Your task to perform on an android device: open app "PlayWell" Image 0: 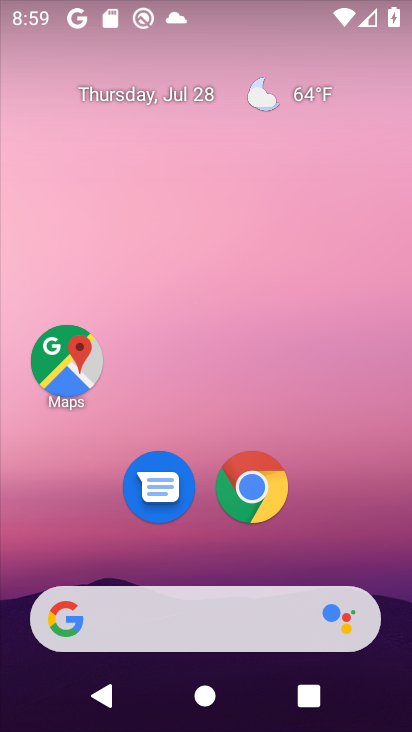
Step 0: drag from (255, 688) to (171, 109)
Your task to perform on an android device: open app "PlayWell" Image 1: 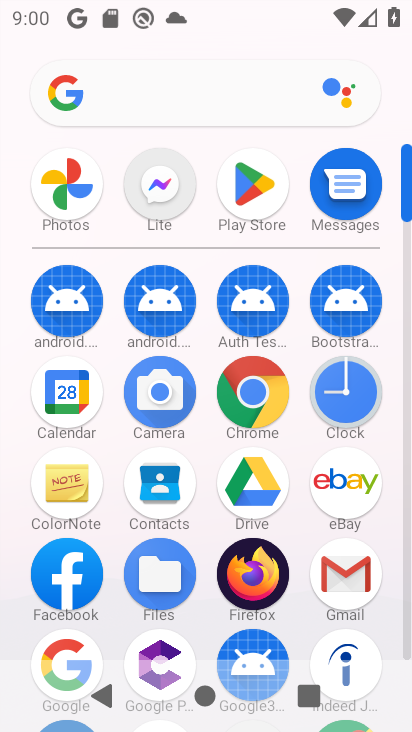
Step 1: click (240, 185)
Your task to perform on an android device: open app "PlayWell" Image 2: 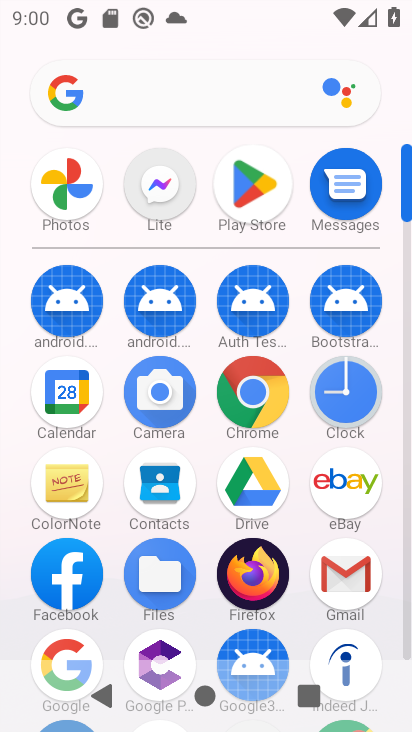
Step 2: click (249, 185)
Your task to perform on an android device: open app "PlayWell" Image 3: 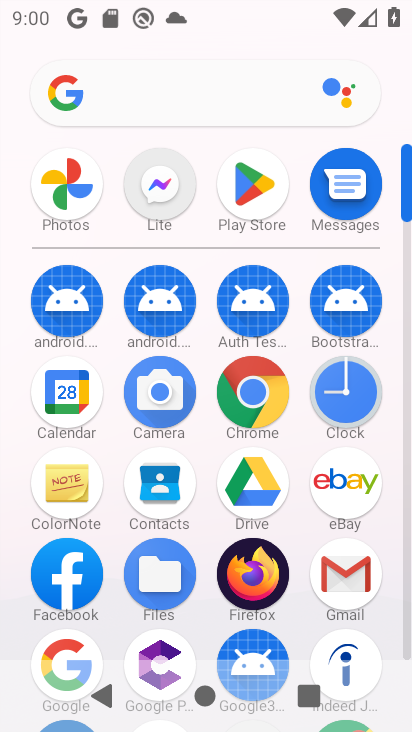
Step 3: click (266, 170)
Your task to perform on an android device: open app "PlayWell" Image 4: 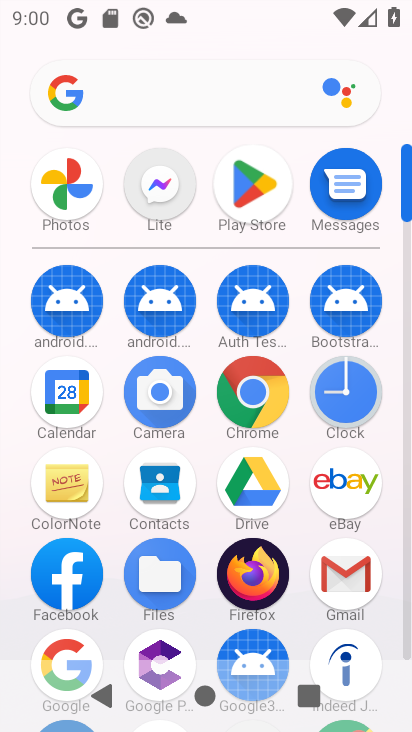
Step 4: click (255, 190)
Your task to perform on an android device: open app "PlayWell" Image 5: 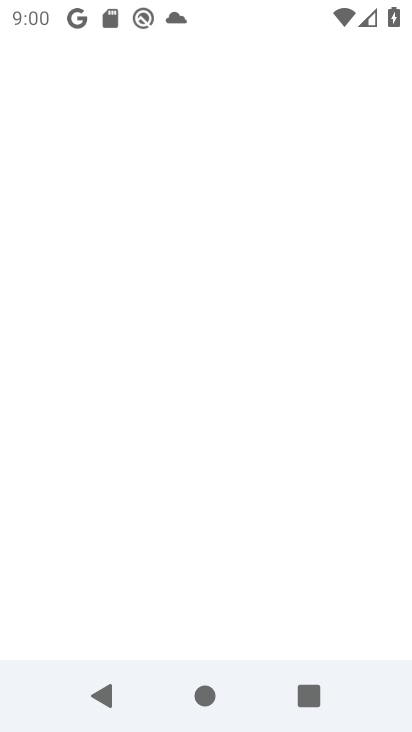
Step 5: click (254, 191)
Your task to perform on an android device: open app "PlayWell" Image 6: 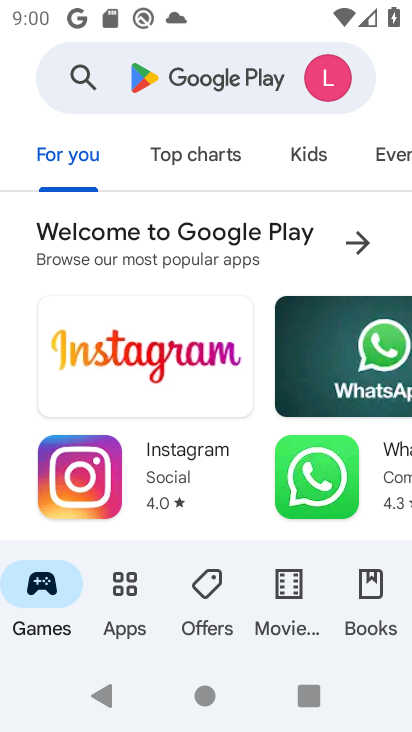
Step 6: click (161, 69)
Your task to perform on an android device: open app "PlayWell" Image 7: 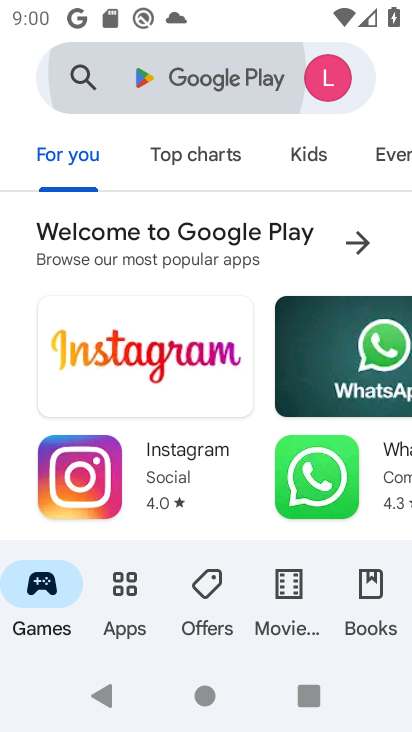
Step 7: click (160, 69)
Your task to perform on an android device: open app "PlayWell" Image 8: 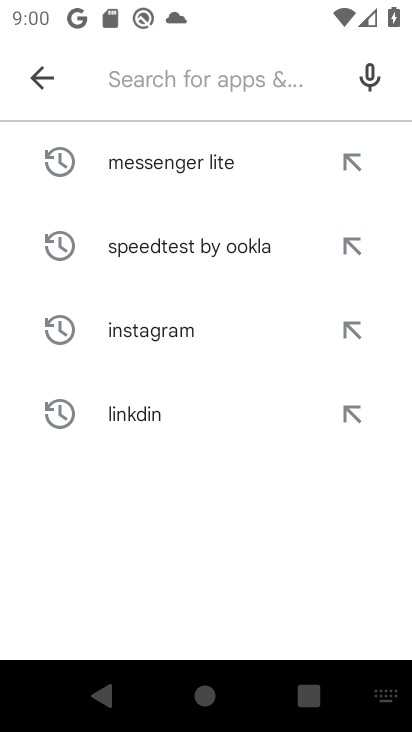
Step 8: type "PlayWell"
Your task to perform on an android device: open app "PlayWell" Image 9: 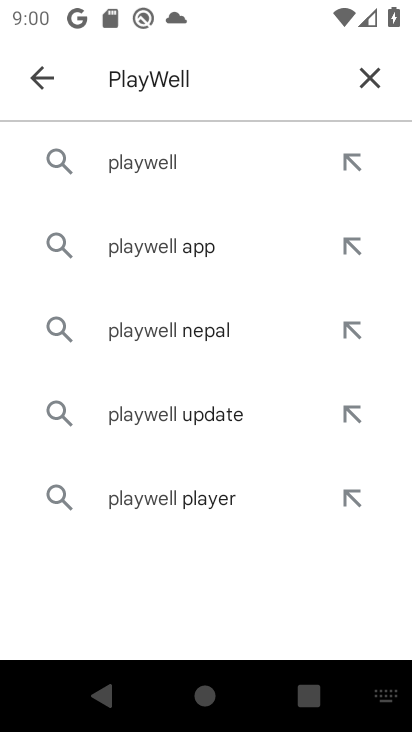
Step 9: click (99, 159)
Your task to perform on an android device: open app "PlayWell" Image 10: 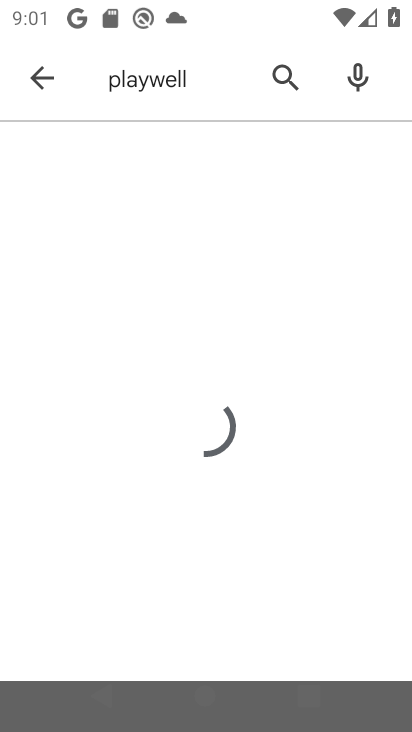
Step 10: click (161, 163)
Your task to perform on an android device: open app "PlayWell" Image 11: 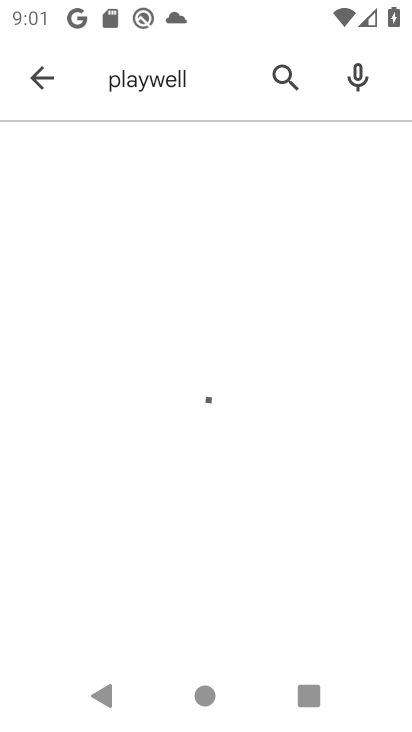
Step 11: click (162, 162)
Your task to perform on an android device: open app "PlayWell" Image 12: 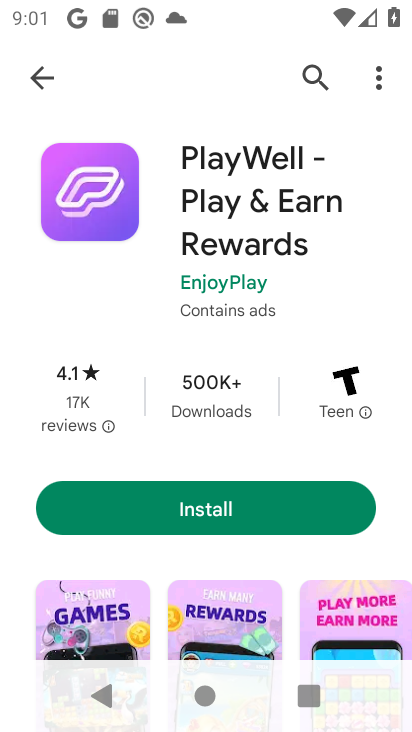
Step 12: click (222, 512)
Your task to perform on an android device: open app "PlayWell" Image 13: 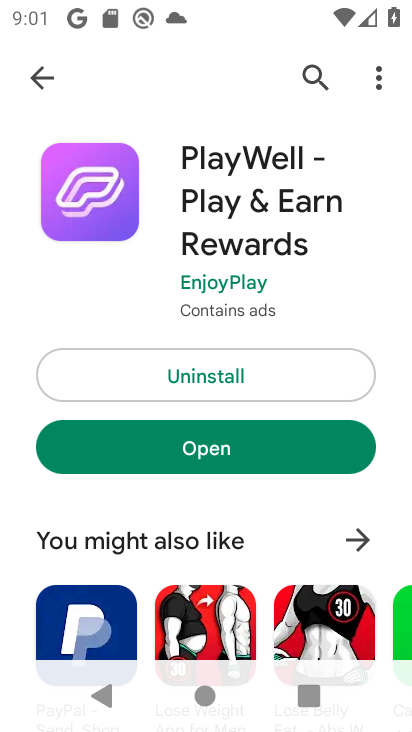
Step 13: click (233, 454)
Your task to perform on an android device: open app "PlayWell" Image 14: 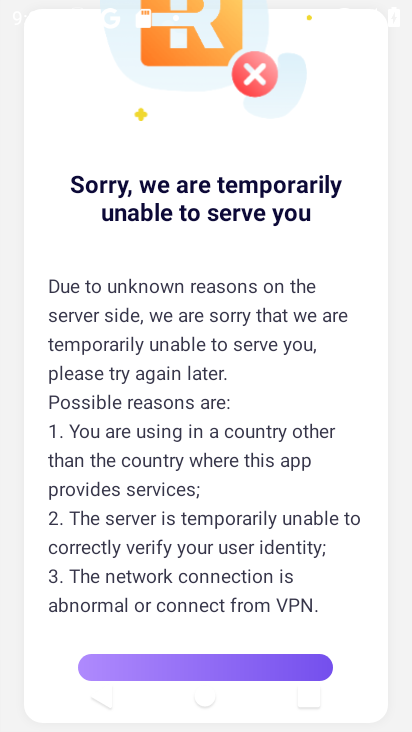
Step 14: press back button
Your task to perform on an android device: open app "PlayWell" Image 15: 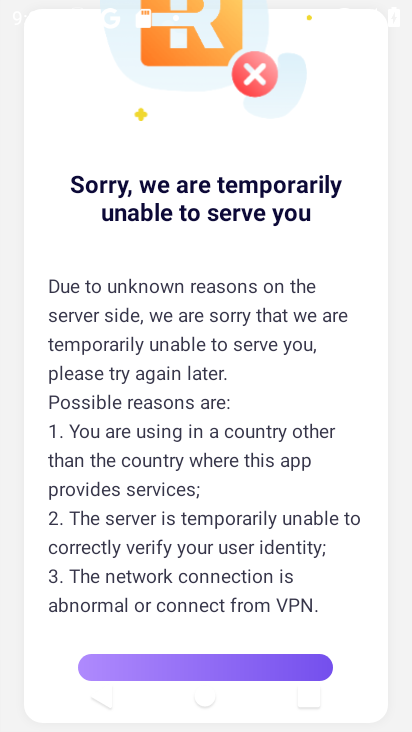
Step 15: press home button
Your task to perform on an android device: open app "PlayWell" Image 16: 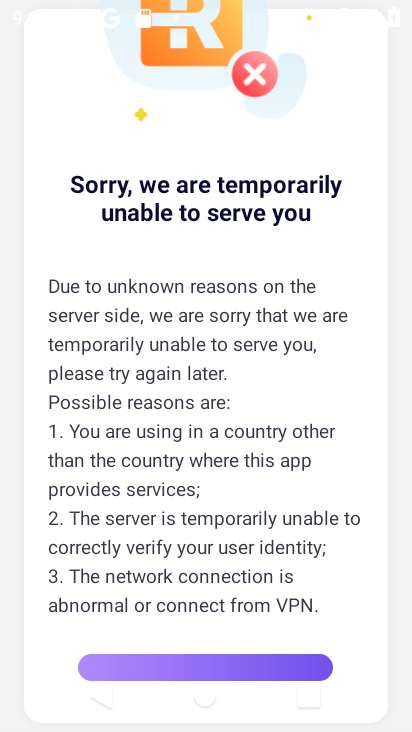
Step 16: press home button
Your task to perform on an android device: open app "PlayWell" Image 17: 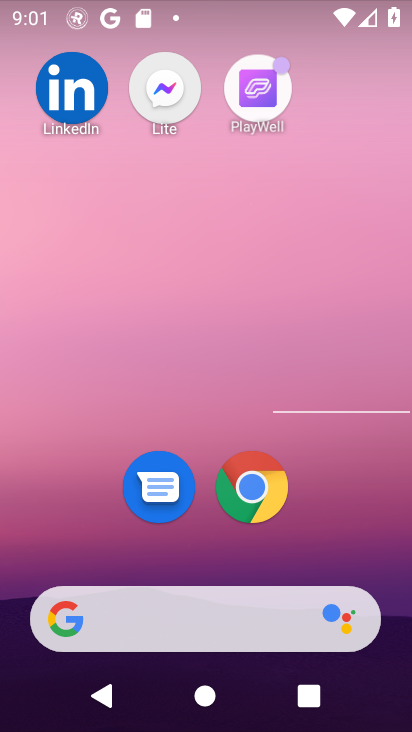
Step 17: press back button
Your task to perform on an android device: open app "PlayWell" Image 18: 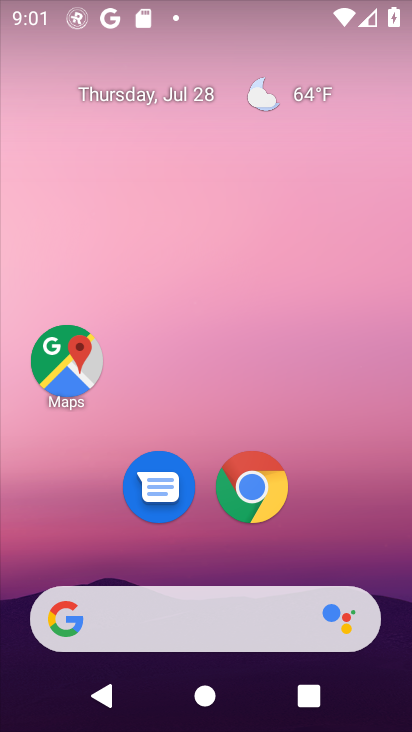
Step 18: drag from (205, 454) to (204, 98)
Your task to perform on an android device: open app "PlayWell" Image 19: 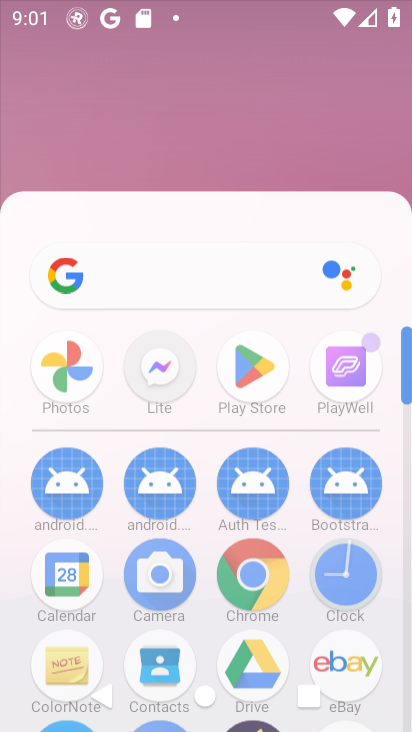
Step 19: drag from (238, 503) to (191, 228)
Your task to perform on an android device: open app "PlayWell" Image 20: 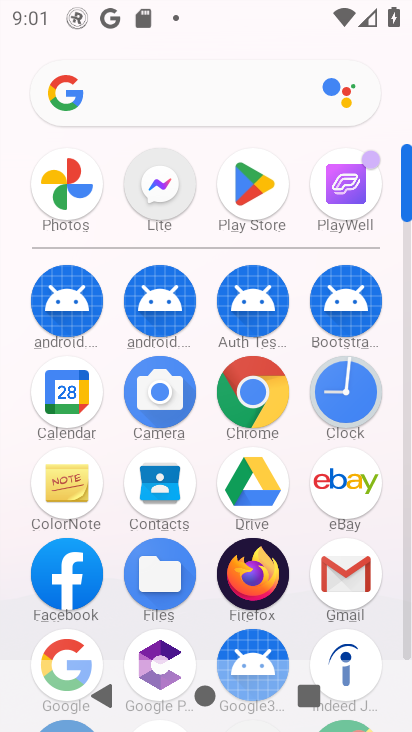
Step 20: drag from (203, 332) to (203, 197)
Your task to perform on an android device: open app "PlayWell" Image 21: 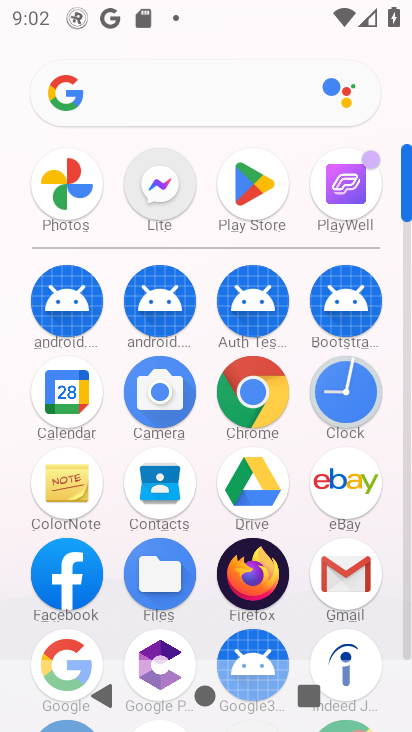
Step 21: click (247, 179)
Your task to perform on an android device: open app "PlayWell" Image 22: 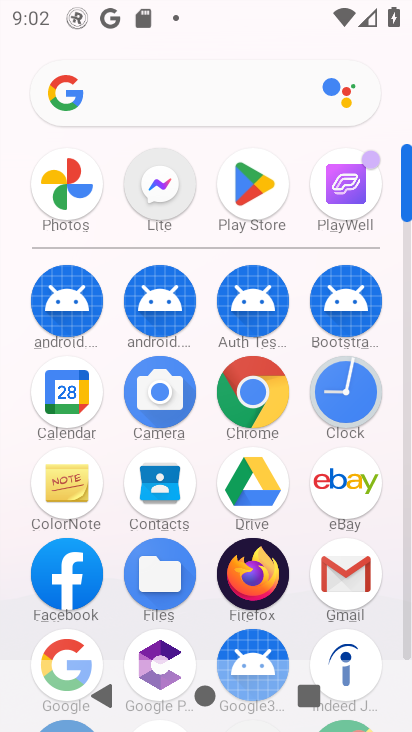
Step 22: click (247, 179)
Your task to perform on an android device: open app "PlayWell" Image 23: 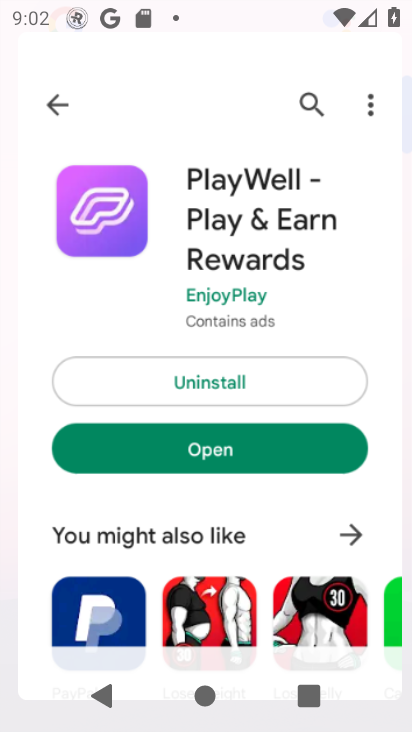
Step 23: click (249, 181)
Your task to perform on an android device: open app "PlayWell" Image 24: 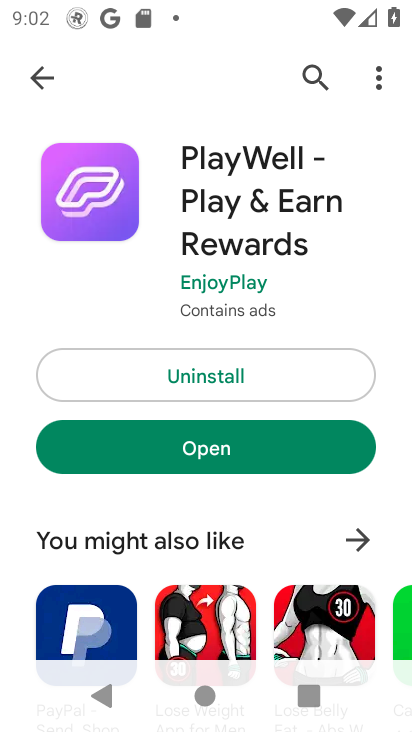
Step 24: click (198, 453)
Your task to perform on an android device: open app "PlayWell" Image 25: 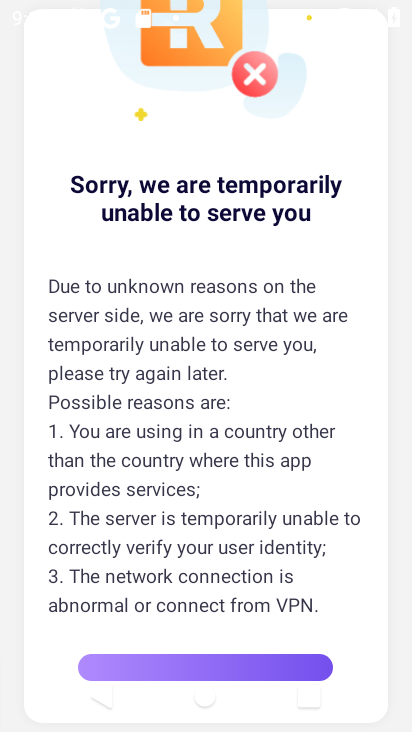
Step 25: drag from (245, 544) to (271, 193)
Your task to perform on an android device: open app "PlayWell" Image 26: 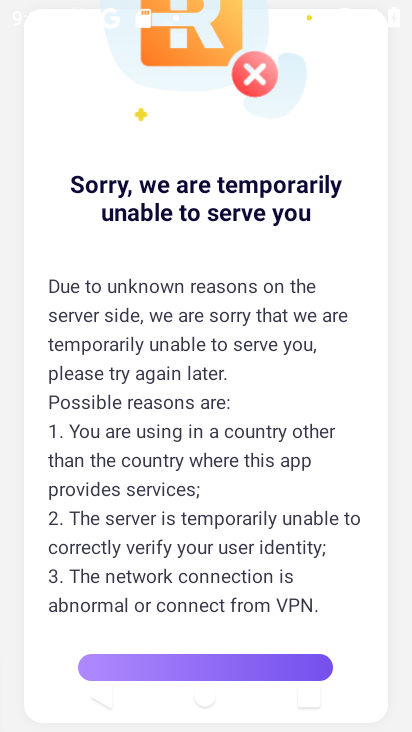
Step 26: drag from (264, 628) to (234, 329)
Your task to perform on an android device: open app "PlayWell" Image 27: 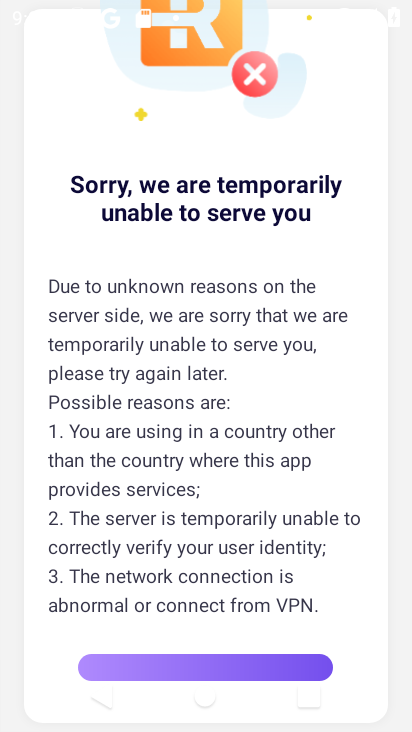
Step 27: drag from (236, 501) to (236, 225)
Your task to perform on an android device: open app "PlayWell" Image 28: 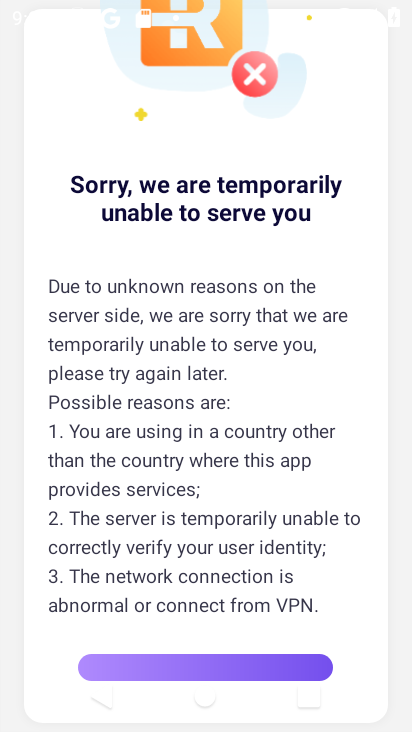
Step 28: click (249, 67)
Your task to perform on an android device: open app "PlayWell" Image 29: 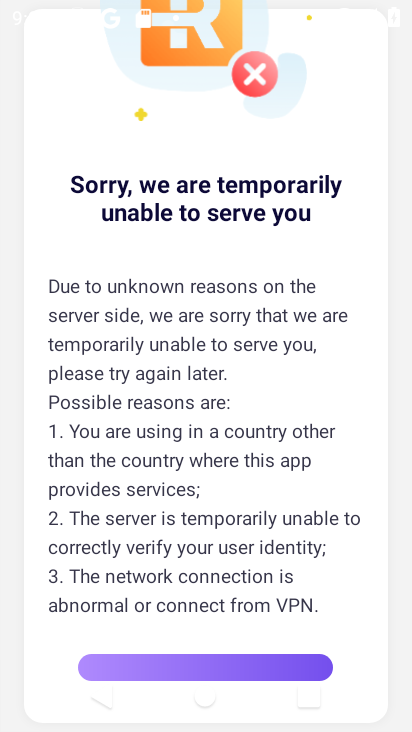
Step 29: click (248, 69)
Your task to perform on an android device: open app "PlayWell" Image 30: 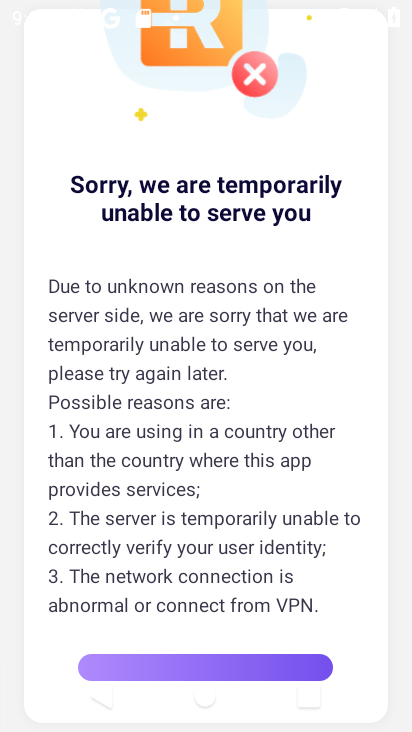
Step 30: click (249, 72)
Your task to perform on an android device: open app "PlayWell" Image 31: 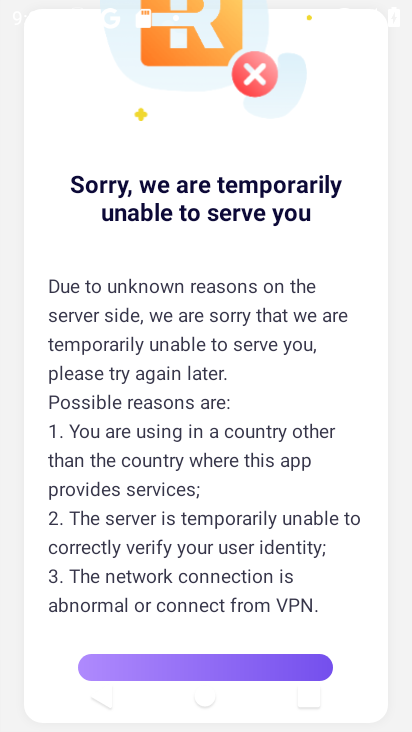
Step 31: press back button
Your task to perform on an android device: open app "PlayWell" Image 32: 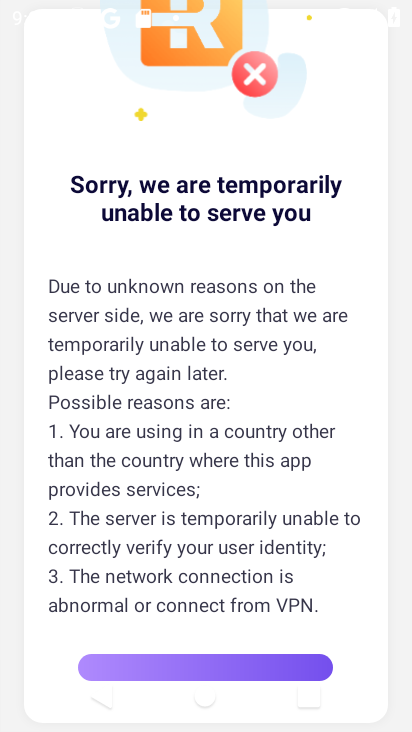
Step 32: press back button
Your task to perform on an android device: open app "PlayWell" Image 33: 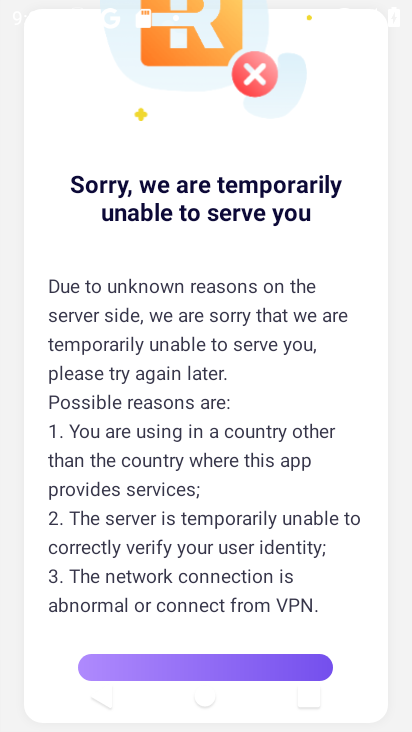
Step 33: press back button
Your task to perform on an android device: open app "PlayWell" Image 34: 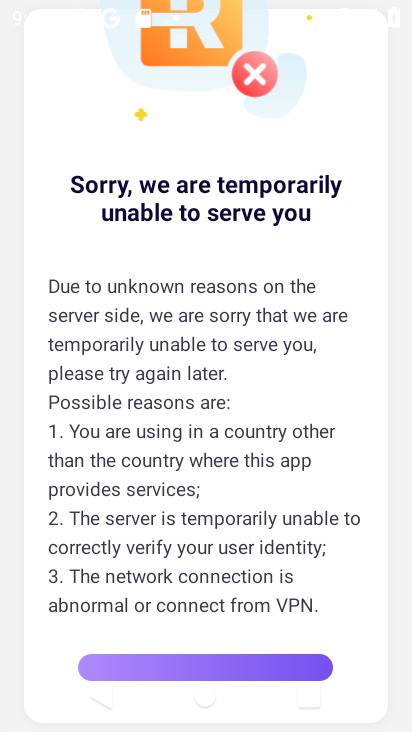
Step 34: press home button
Your task to perform on an android device: open app "PlayWell" Image 35: 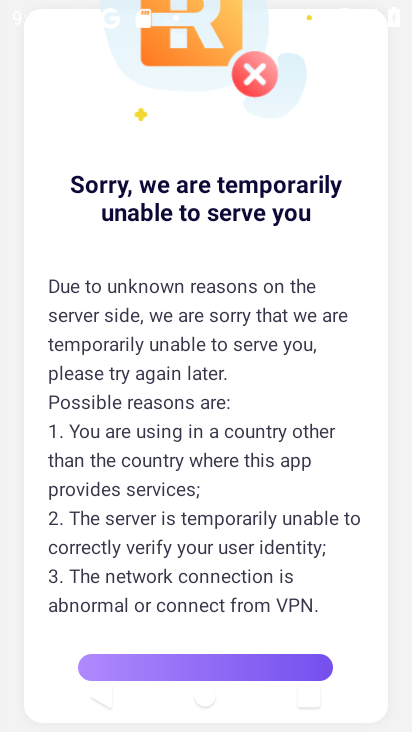
Step 35: press home button
Your task to perform on an android device: open app "PlayWell" Image 36: 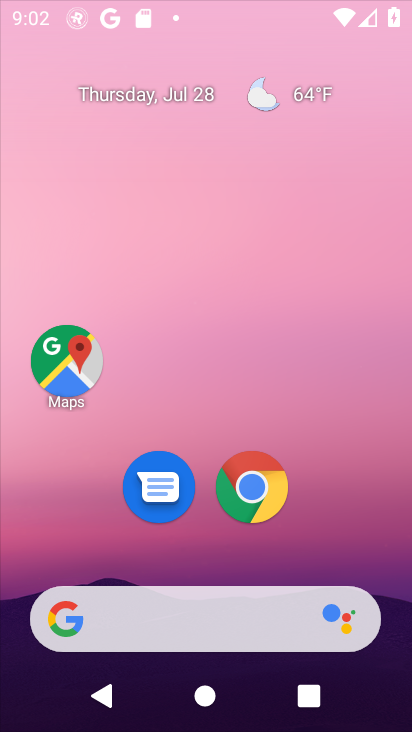
Step 36: press back button
Your task to perform on an android device: open app "PlayWell" Image 37: 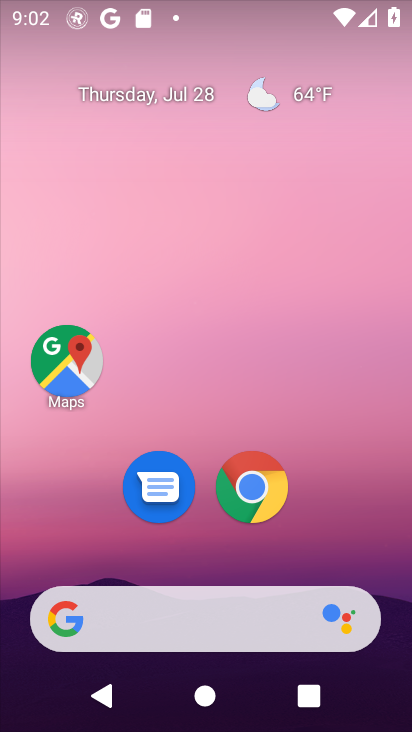
Step 37: press back button
Your task to perform on an android device: open app "PlayWell" Image 38: 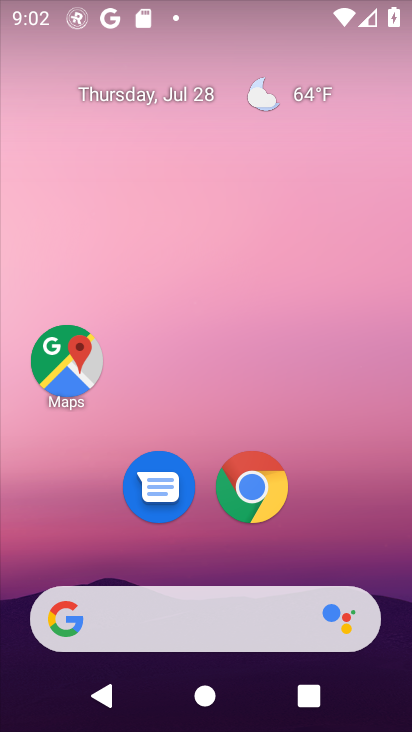
Step 38: press back button
Your task to perform on an android device: open app "PlayWell" Image 39: 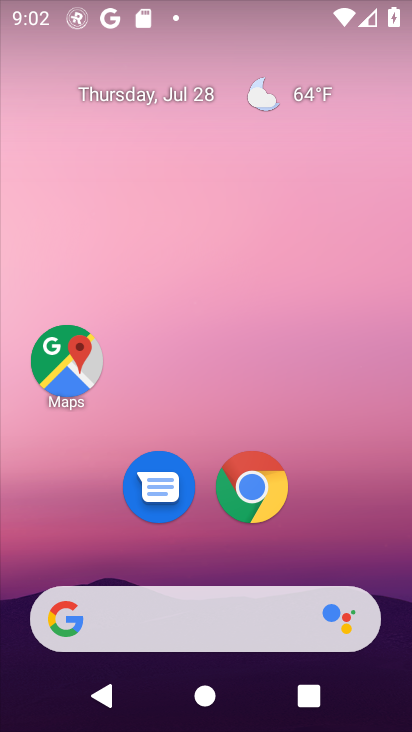
Step 39: drag from (256, 653) to (229, 179)
Your task to perform on an android device: open app "PlayWell" Image 40: 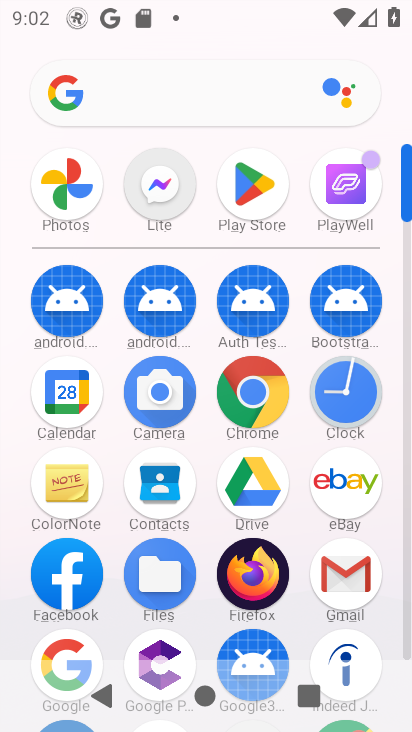
Step 40: click (248, 190)
Your task to perform on an android device: open app "PlayWell" Image 41: 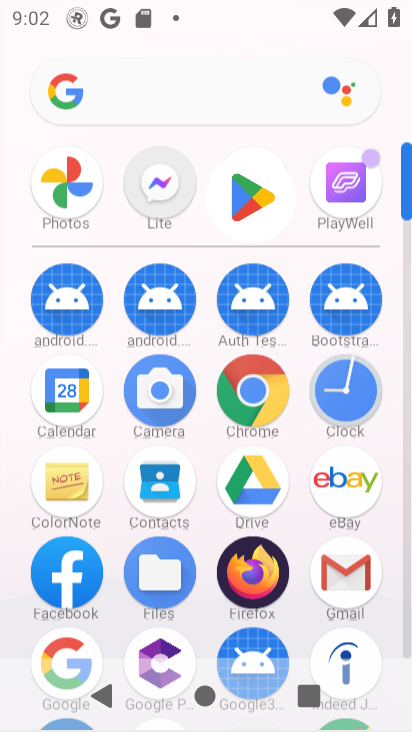
Step 41: click (247, 190)
Your task to perform on an android device: open app "PlayWell" Image 42: 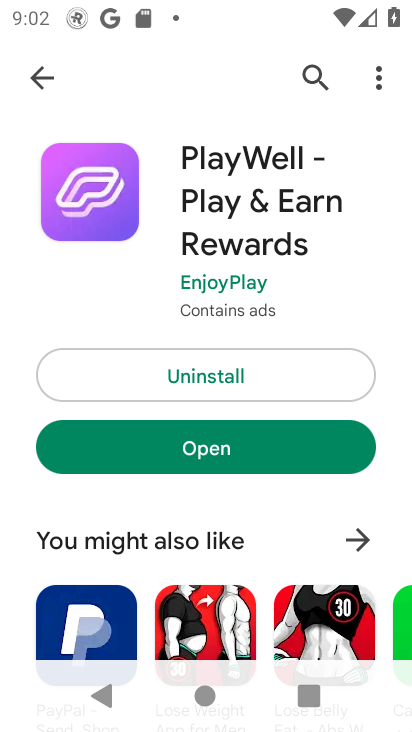
Step 42: click (223, 443)
Your task to perform on an android device: open app "PlayWell" Image 43: 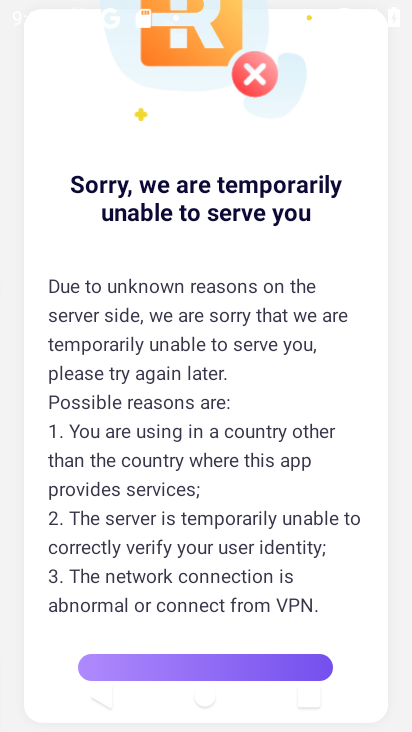
Step 43: task complete